Your task to perform on an android device: turn on priority inbox in the gmail app Image 0: 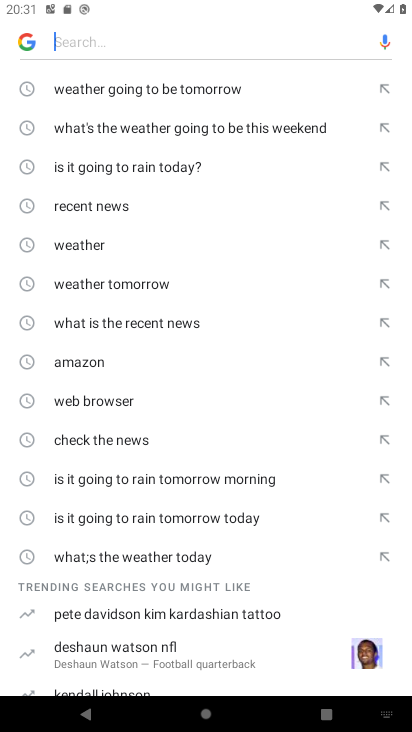
Step 0: press home button
Your task to perform on an android device: turn on priority inbox in the gmail app Image 1: 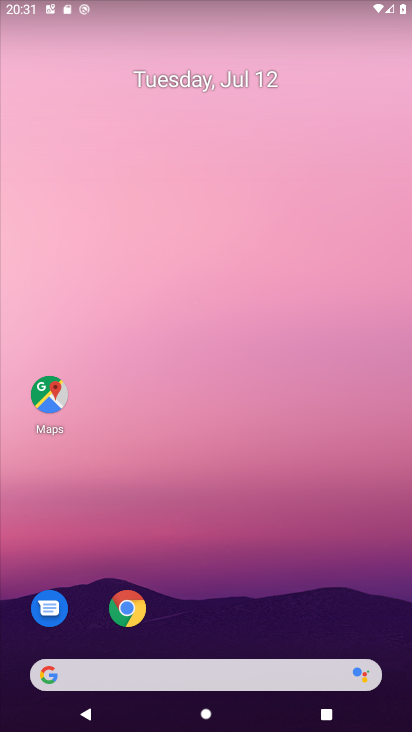
Step 1: drag from (159, 675) to (256, 101)
Your task to perform on an android device: turn on priority inbox in the gmail app Image 2: 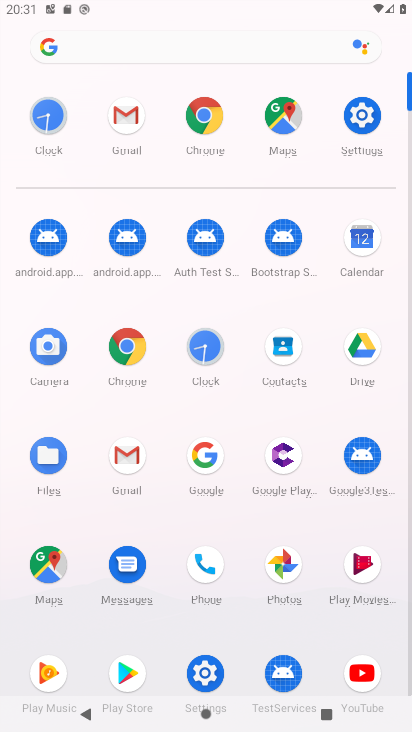
Step 2: click (129, 118)
Your task to perform on an android device: turn on priority inbox in the gmail app Image 3: 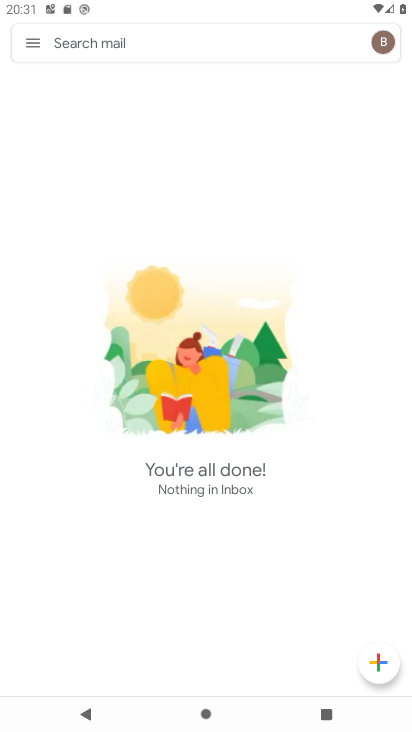
Step 3: click (35, 39)
Your task to perform on an android device: turn on priority inbox in the gmail app Image 4: 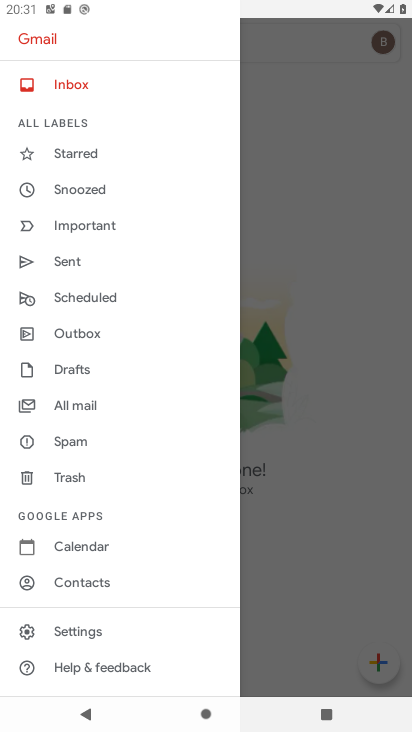
Step 4: click (66, 633)
Your task to perform on an android device: turn on priority inbox in the gmail app Image 5: 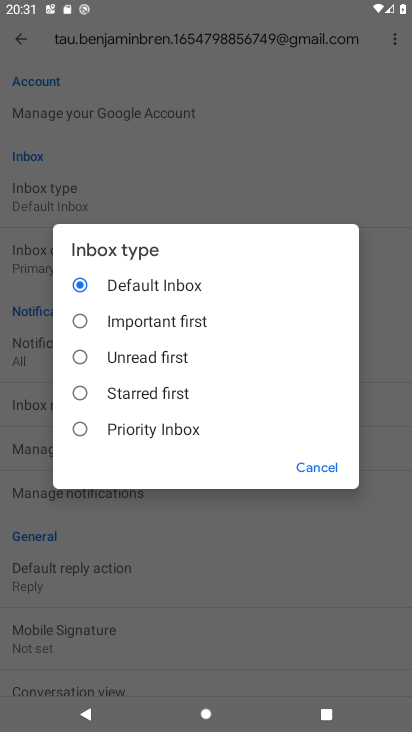
Step 5: click (76, 423)
Your task to perform on an android device: turn on priority inbox in the gmail app Image 6: 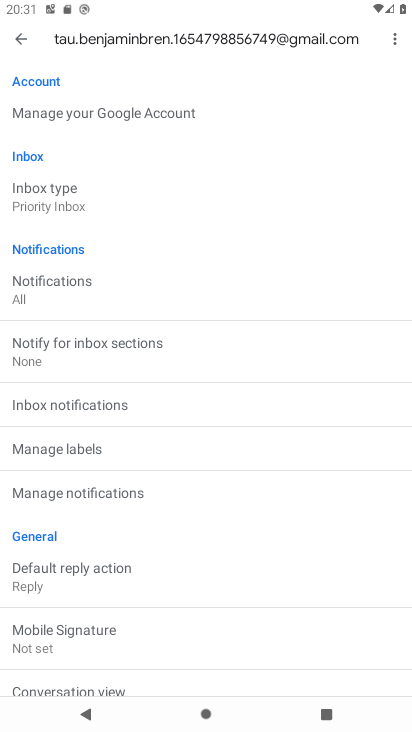
Step 6: task complete